Your task to perform on an android device: What's the weather going to be tomorrow? Image 0: 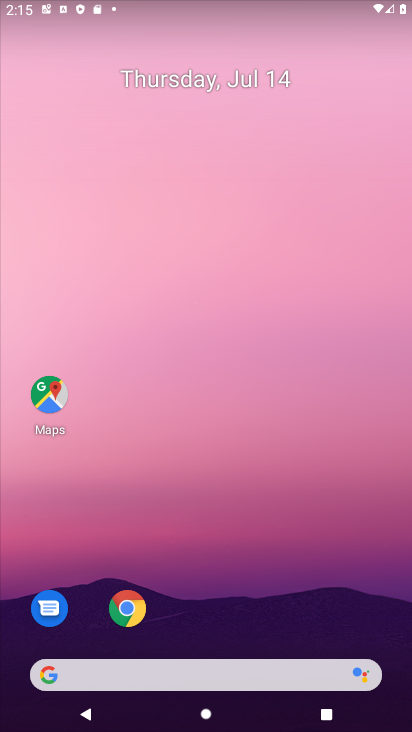
Step 0: drag from (3, 251) to (368, 248)
Your task to perform on an android device: What's the weather going to be tomorrow? Image 1: 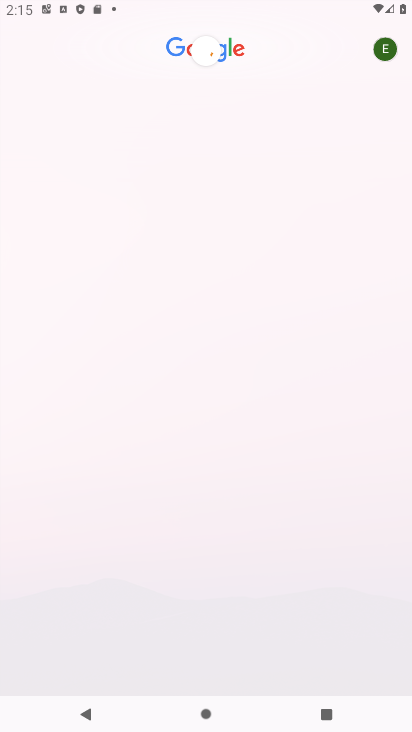
Step 1: task complete